Your task to perform on an android device: Open the camera Image 0: 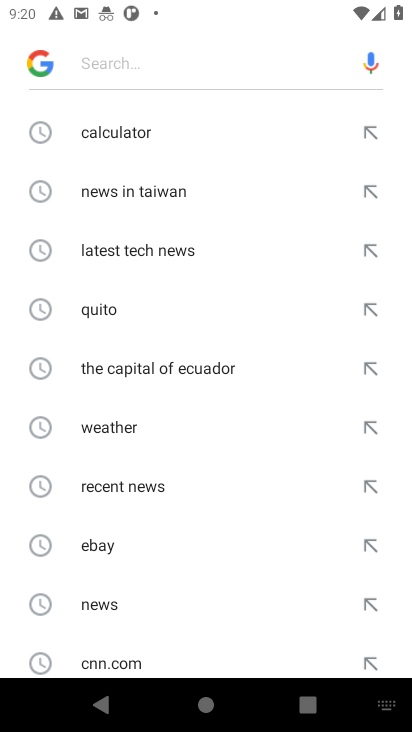
Step 0: press home button
Your task to perform on an android device: Open the camera Image 1: 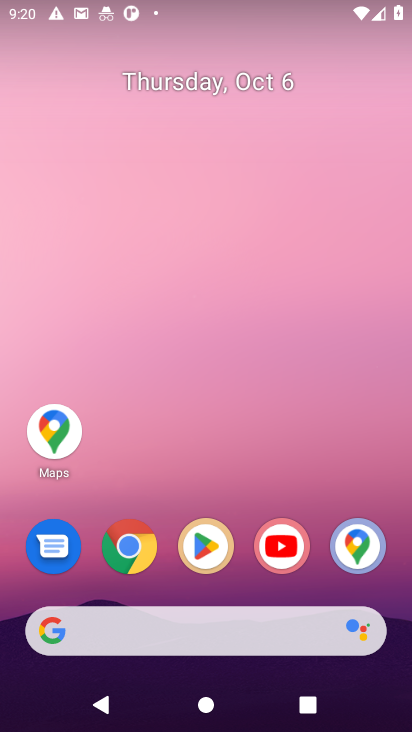
Step 1: drag from (240, 575) to (231, 152)
Your task to perform on an android device: Open the camera Image 2: 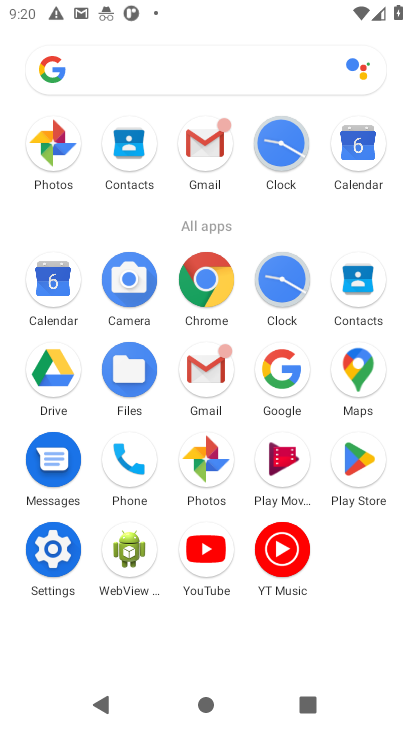
Step 2: click (126, 277)
Your task to perform on an android device: Open the camera Image 3: 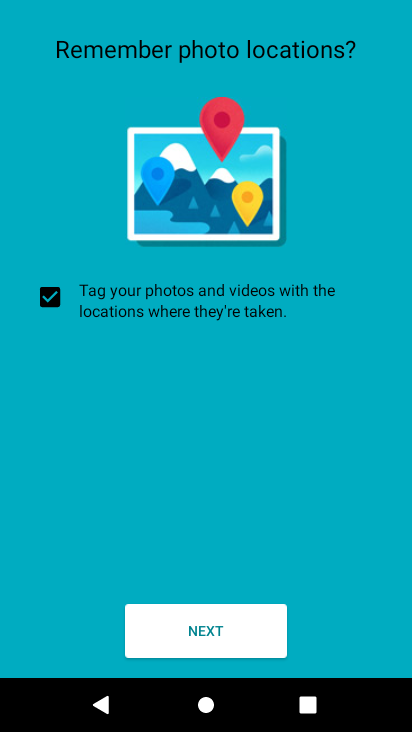
Step 3: click (204, 634)
Your task to perform on an android device: Open the camera Image 4: 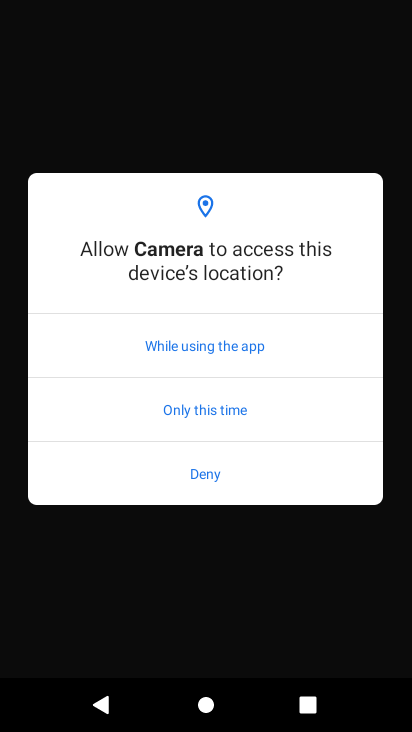
Step 4: click (189, 350)
Your task to perform on an android device: Open the camera Image 5: 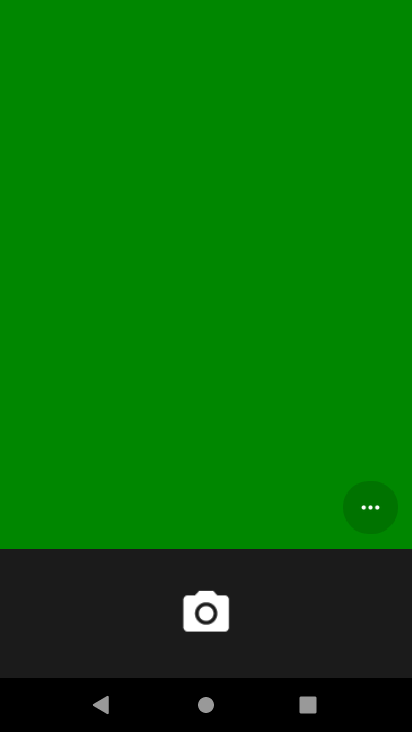
Step 5: task complete